Your task to perform on an android device: open a new tab in the chrome app Image 0: 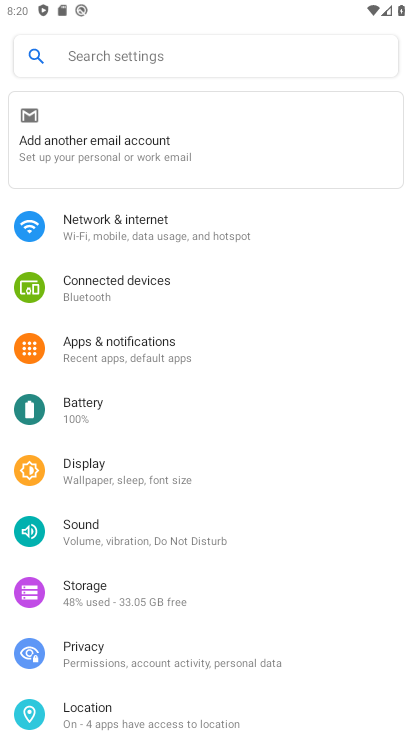
Step 0: press home button
Your task to perform on an android device: open a new tab in the chrome app Image 1: 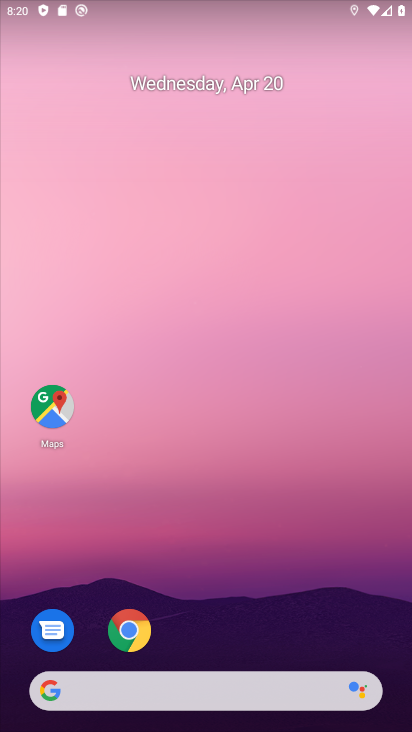
Step 1: click (129, 621)
Your task to perform on an android device: open a new tab in the chrome app Image 2: 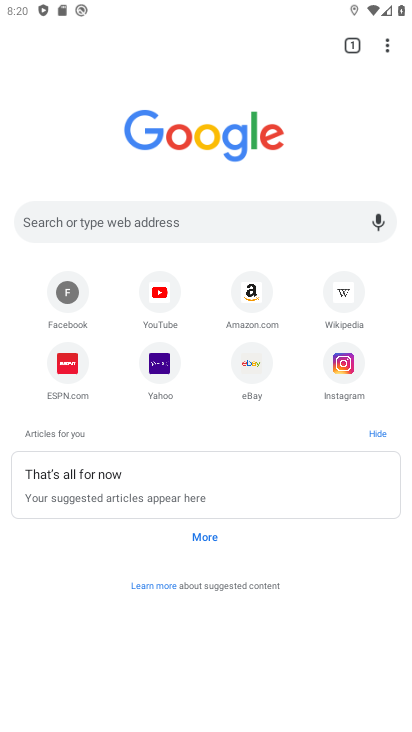
Step 2: click (390, 40)
Your task to perform on an android device: open a new tab in the chrome app Image 3: 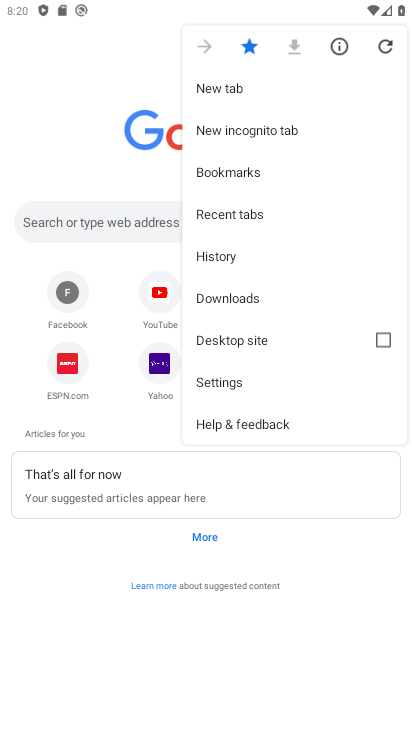
Step 3: click (225, 86)
Your task to perform on an android device: open a new tab in the chrome app Image 4: 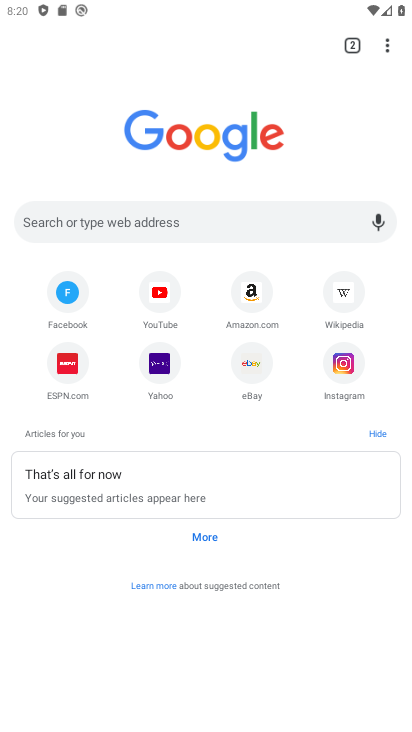
Step 4: task complete